Your task to perform on an android device: Open ESPN.com Image 0: 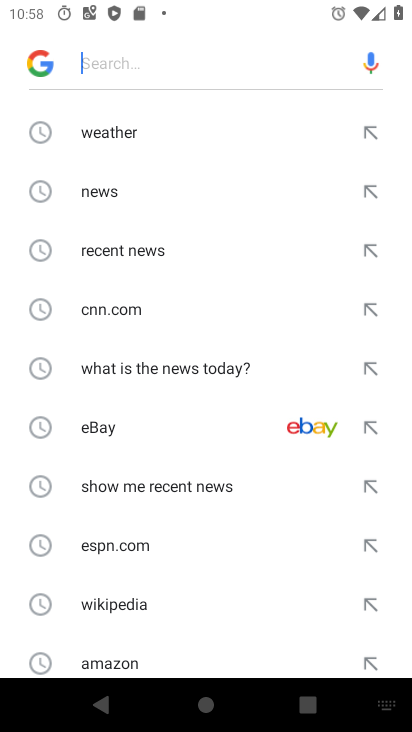
Step 0: press back button
Your task to perform on an android device: Open ESPN.com Image 1: 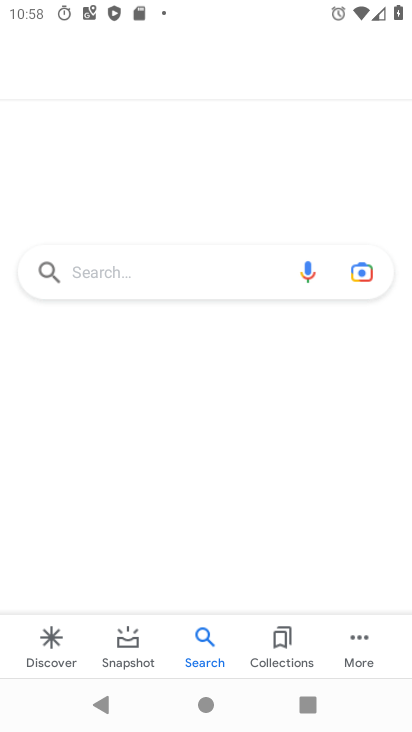
Step 1: press home button
Your task to perform on an android device: Open ESPN.com Image 2: 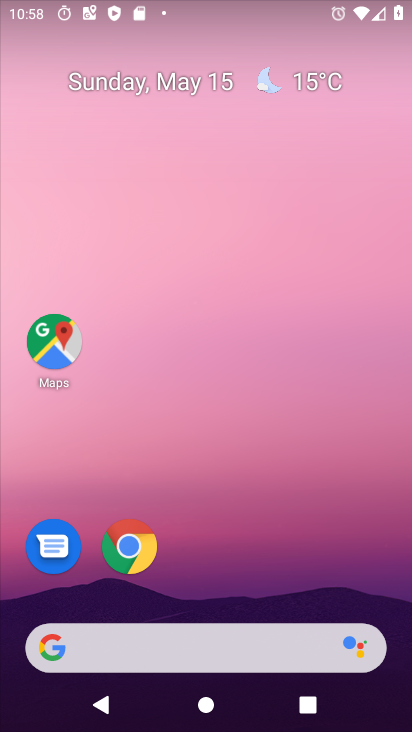
Step 2: drag from (289, 625) to (213, 137)
Your task to perform on an android device: Open ESPN.com Image 3: 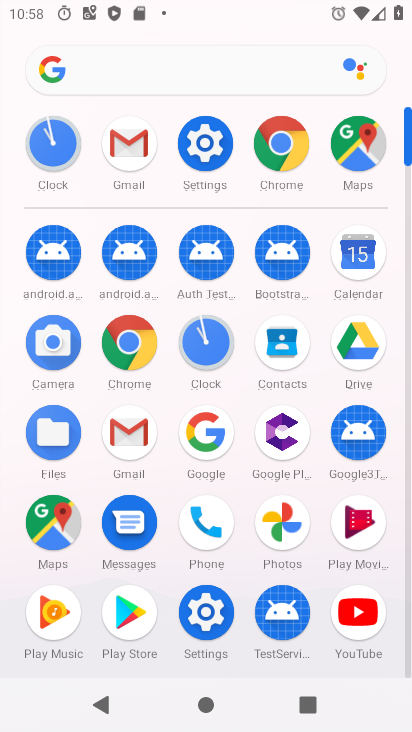
Step 3: click (280, 142)
Your task to perform on an android device: Open ESPN.com Image 4: 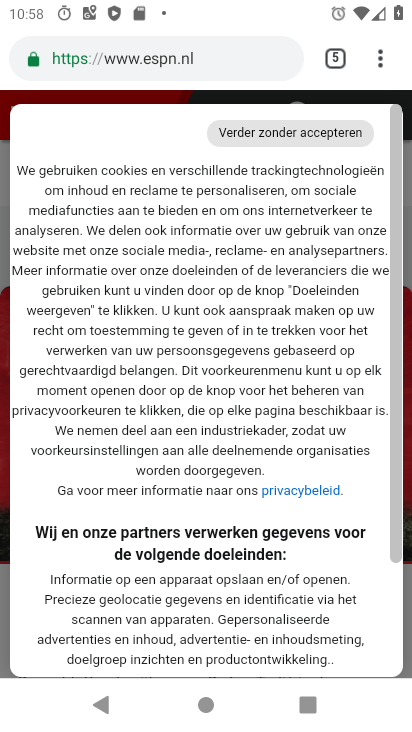
Step 4: task complete